Your task to perform on an android device: Find coffee shops on Maps Image 0: 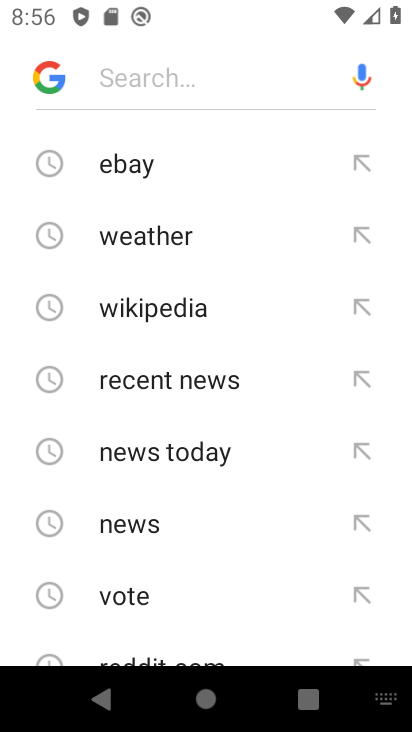
Step 0: press home button
Your task to perform on an android device: Find coffee shops on Maps Image 1: 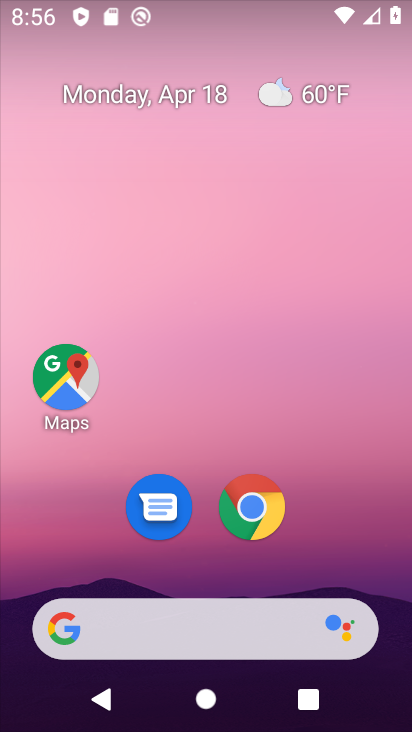
Step 1: click (69, 383)
Your task to perform on an android device: Find coffee shops on Maps Image 2: 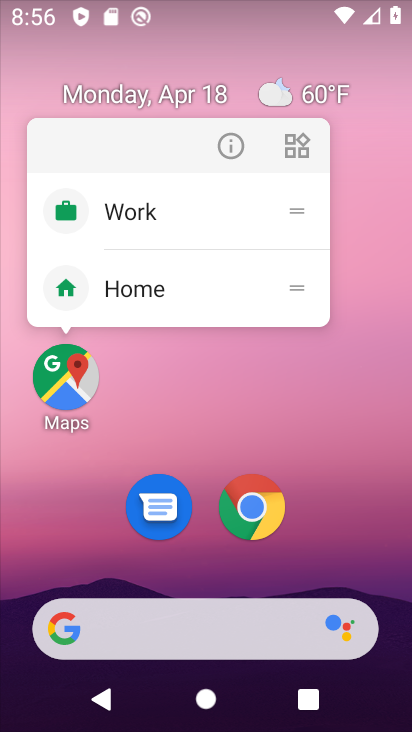
Step 2: click (70, 391)
Your task to perform on an android device: Find coffee shops on Maps Image 3: 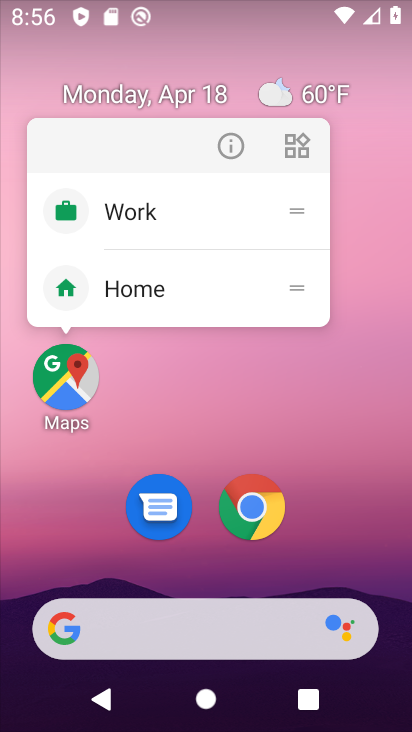
Step 3: click (70, 399)
Your task to perform on an android device: Find coffee shops on Maps Image 4: 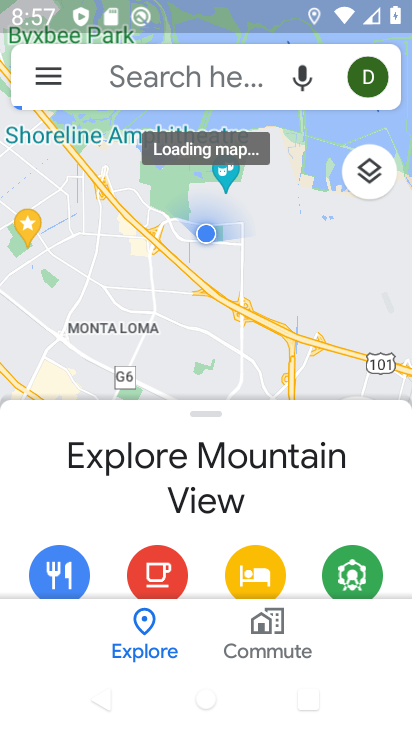
Step 4: click (195, 86)
Your task to perform on an android device: Find coffee shops on Maps Image 5: 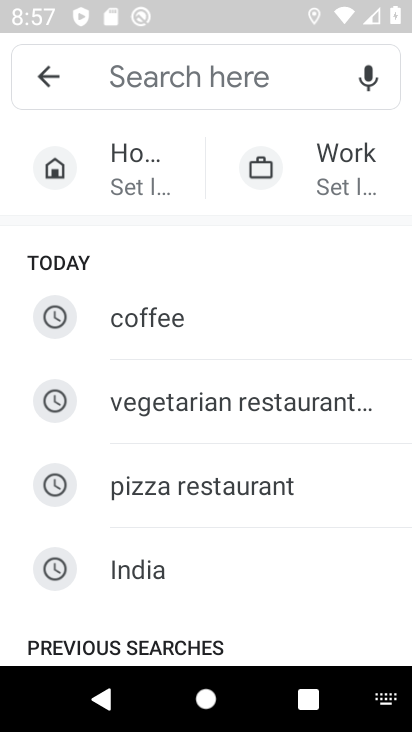
Step 5: type "Coffee shop"
Your task to perform on an android device: Find coffee shops on Maps Image 6: 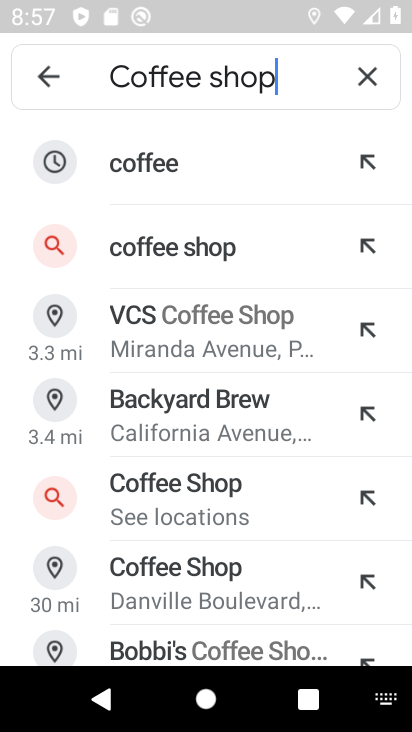
Step 6: click (230, 498)
Your task to perform on an android device: Find coffee shops on Maps Image 7: 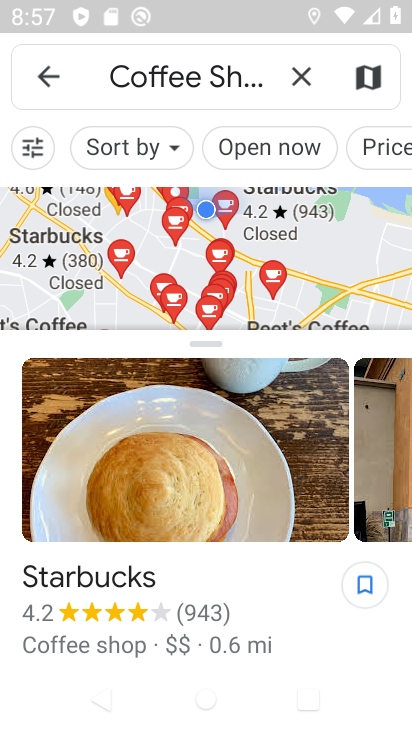
Step 7: task complete